Your task to perform on an android device: snooze an email in the gmail app Image 0: 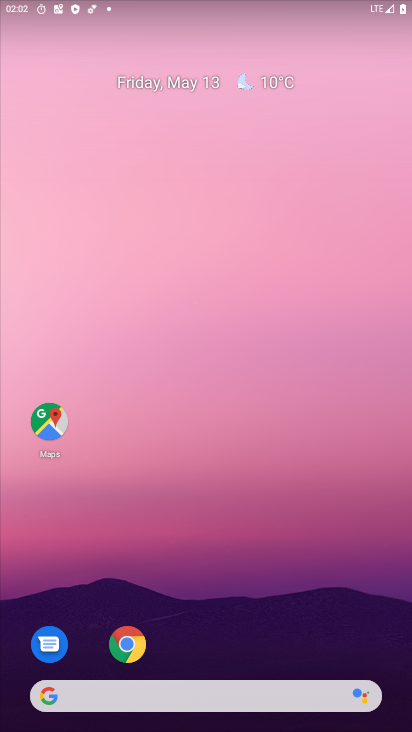
Step 0: drag from (278, 659) to (309, 74)
Your task to perform on an android device: snooze an email in the gmail app Image 1: 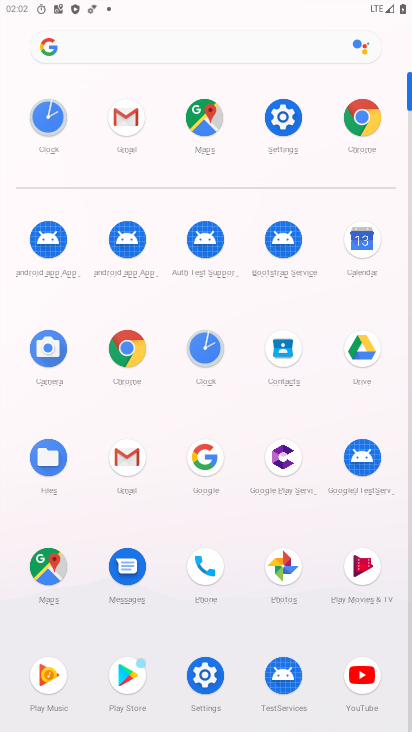
Step 1: click (120, 446)
Your task to perform on an android device: snooze an email in the gmail app Image 2: 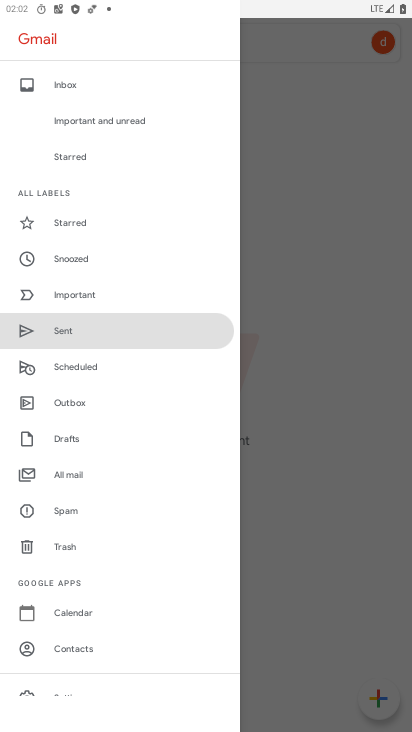
Step 2: click (82, 255)
Your task to perform on an android device: snooze an email in the gmail app Image 3: 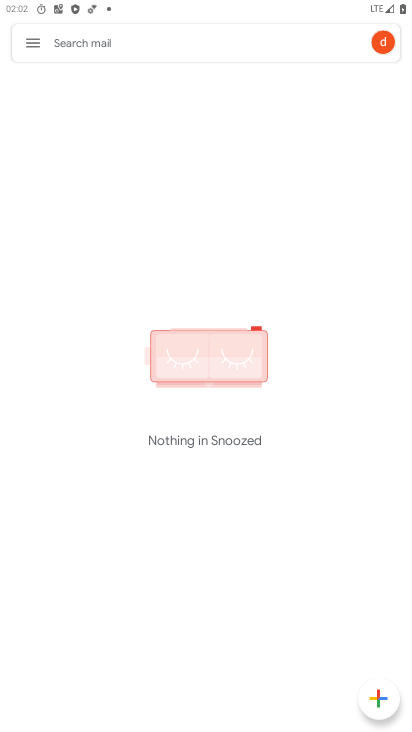
Step 3: task complete